Your task to perform on an android device: toggle airplane mode Image 0: 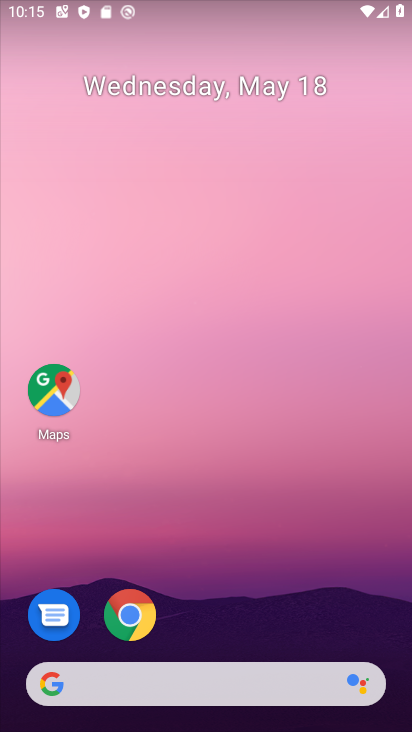
Step 0: drag from (186, 16) to (326, 547)
Your task to perform on an android device: toggle airplane mode Image 1: 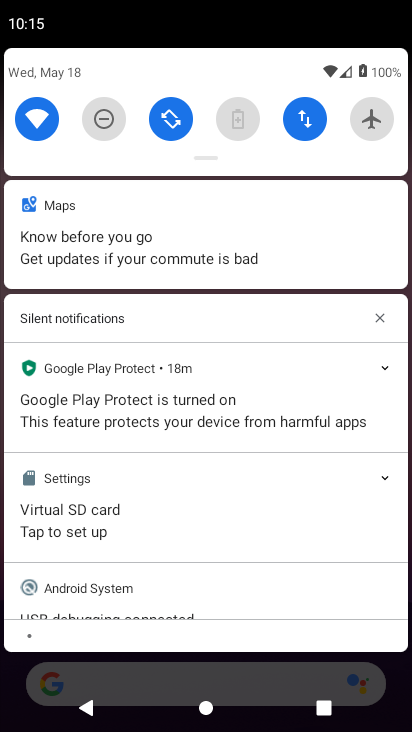
Step 1: click (368, 119)
Your task to perform on an android device: toggle airplane mode Image 2: 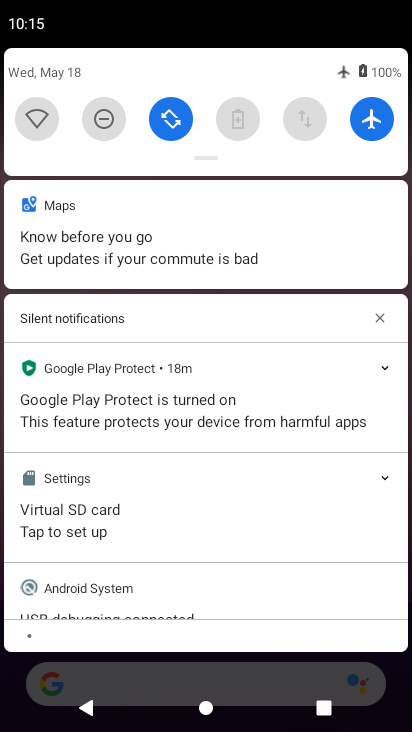
Step 2: click (368, 119)
Your task to perform on an android device: toggle airplane mode Image 3: 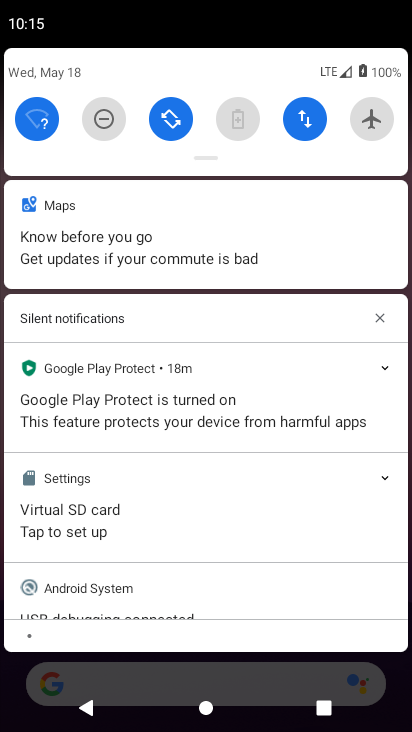
Step 3: click (368, 119)
Your task to perform on an android device: toggle airplane mode Image 4: 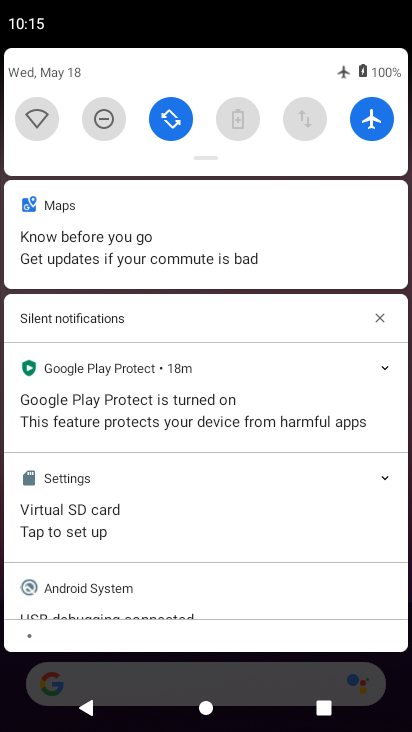
Step 4: click (368, 119)
Your task to perform on an android device: toggle airplane mode Image 5: 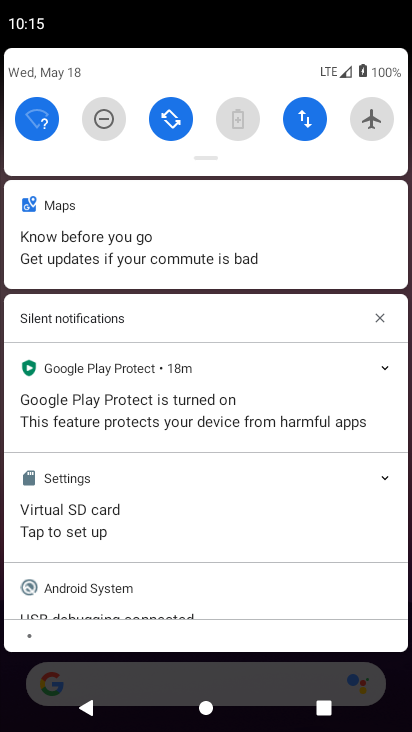
Step 5: task complete